Your task to perform on an android device: change the clock style Image 0: 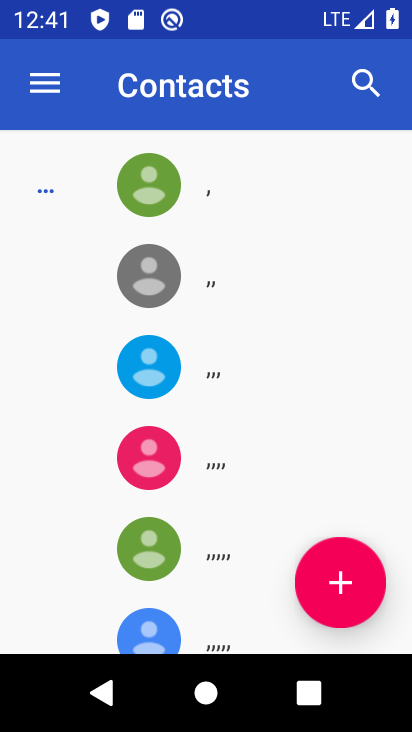
Step 0: press home button
Your task to perform on an android device: change the clock style Image 1: 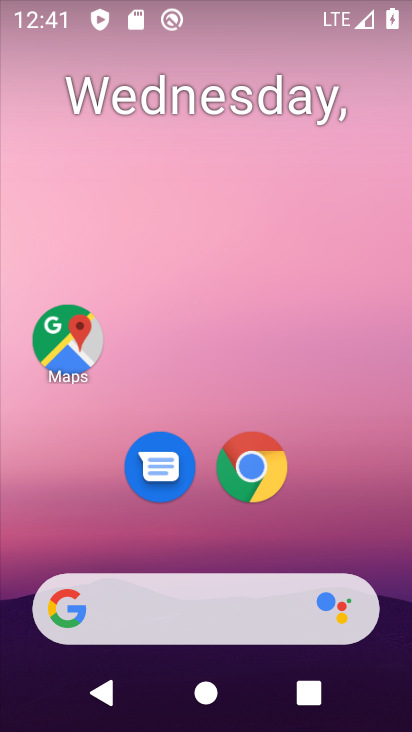
Step 1: drag from (371, 528) to (373, 121)
Your task to perform on an android device: change the clock style Image 2: 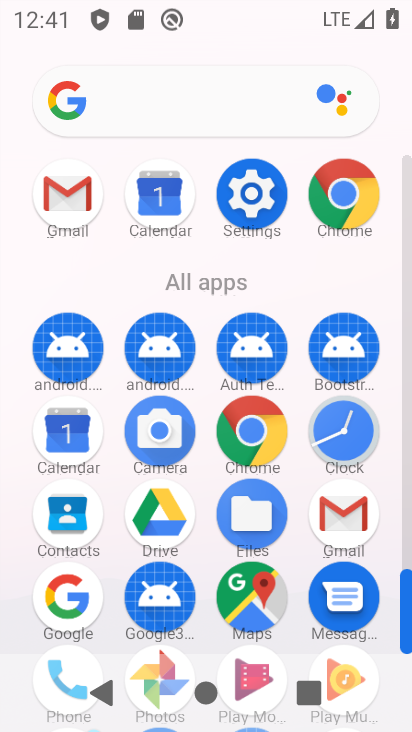
Step 2: click (355, 424)
Your task to perform on an android device: change the clock style Image 3: 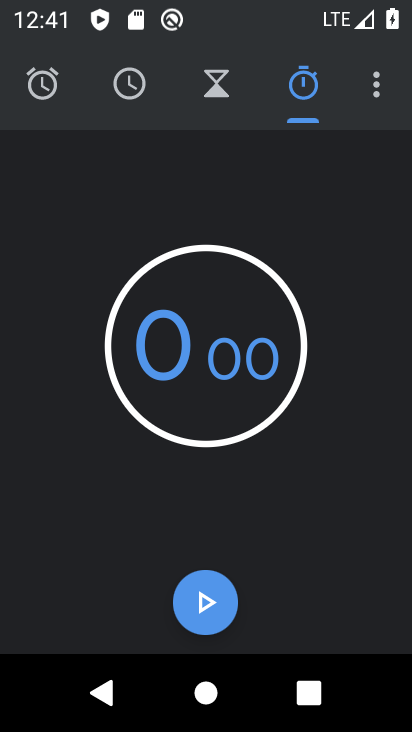
Step 3: click (377, 100)
Your task to perform on an android device: change the clock style Image 4: 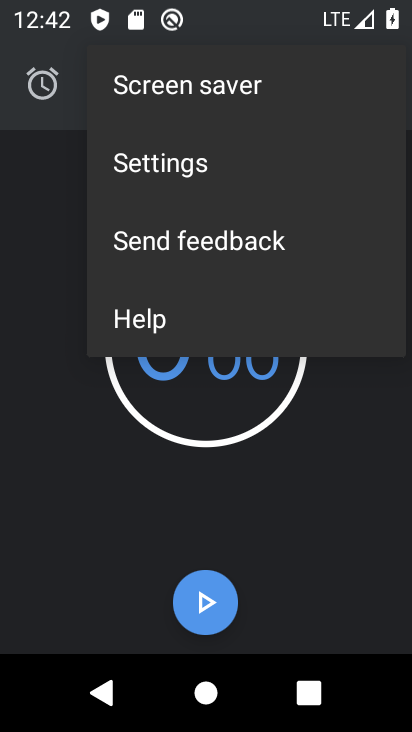
Step 4: click (265, 174)
Your task to perform on an android device: change the clock style Image 5: 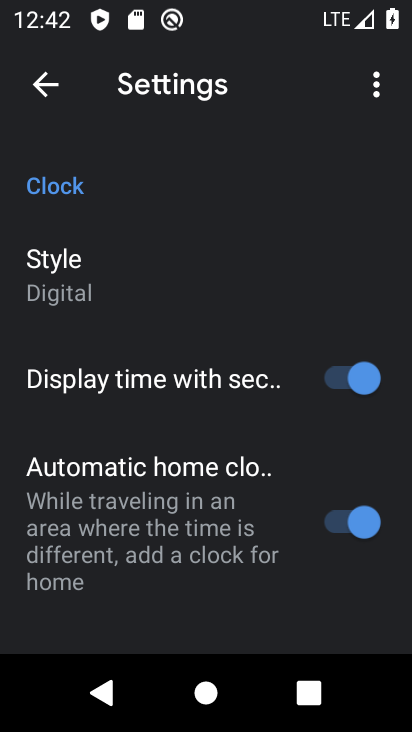
Step 5: click (110, 308)
Your task to perform on an android device: change the clock style Image 6: 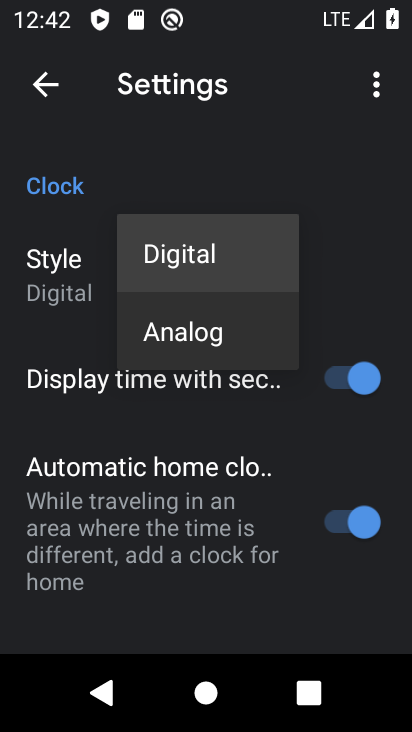
Step 6: click (188, 339)
Your task to perform on an android device: change the clock style Image 7: 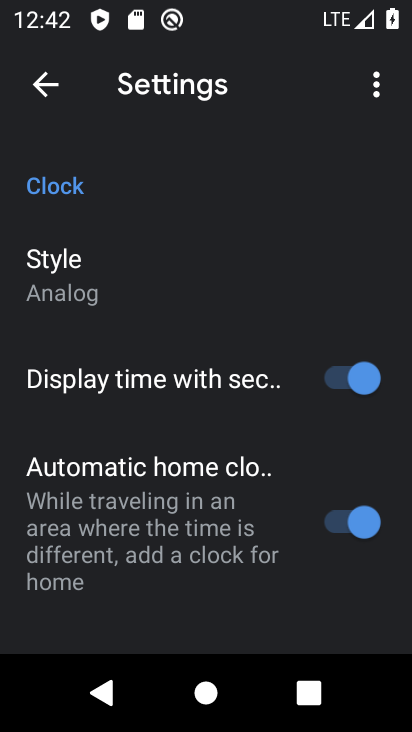
Step 7: task complete